Your task to perform on an android device: Open the map Image 0: 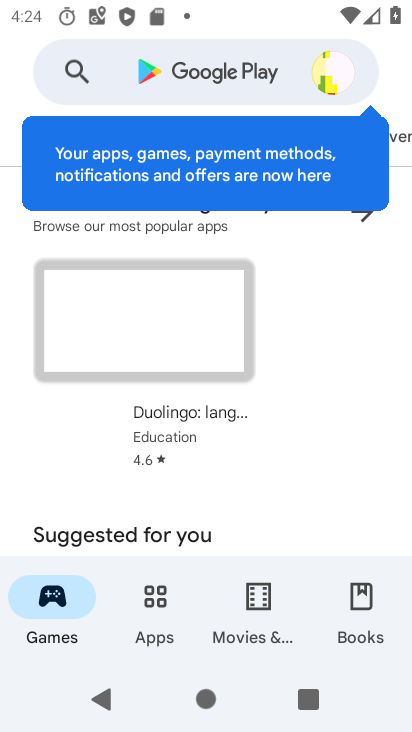
Step 0: press home button
Your task to perform on an android device: Open the map Image 1: 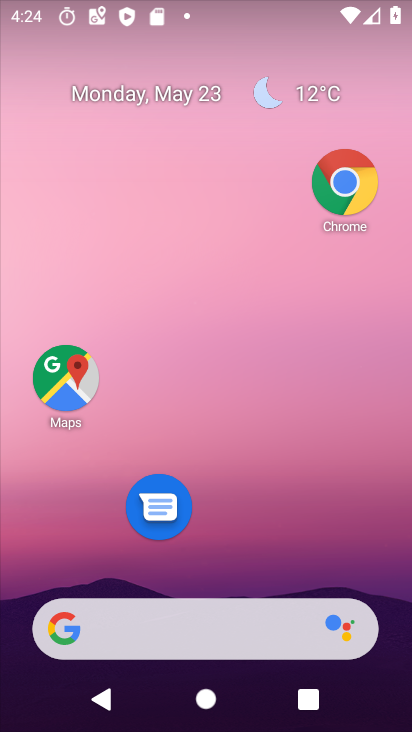
Step 1: click (77, 365)
Your task to perform on an android device: Open the map Image 2: 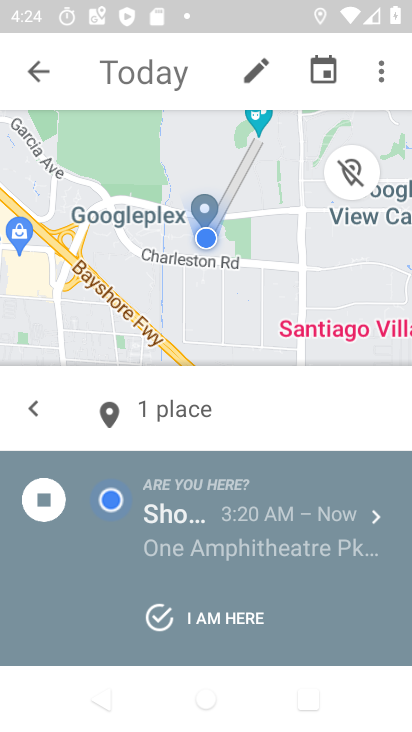
Step 2: task complete